Your task to perform on an android device: Open the phone app and click the voicemail tab. Image 0: 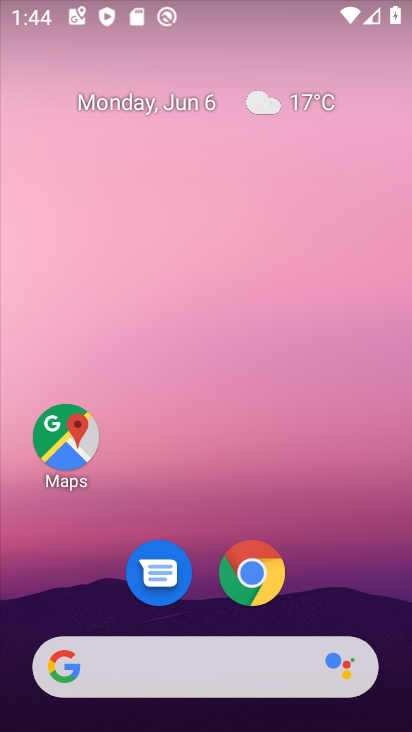
Step 0: drag from (189, 609) to (260, 177)
Your task to perform on an android device: Open the phone app and click the voicemail tab. Image 1: 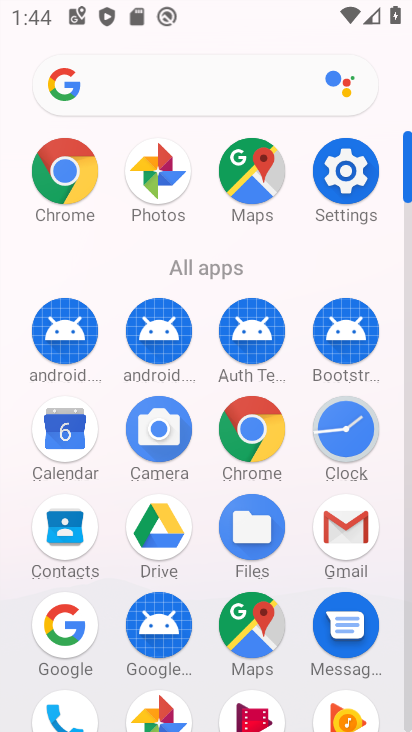
Step 1: click (57, 713)
Your task to perform on an android device: Open the phone app and click the voicemail tab. Image 2: 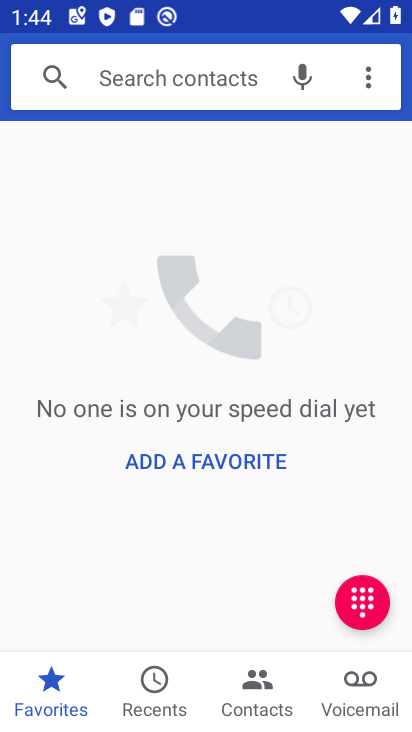
Step 2: click (363, 686)
Your task to perform on an android device: Open the phone app and click the voicemail tab. Image 3: 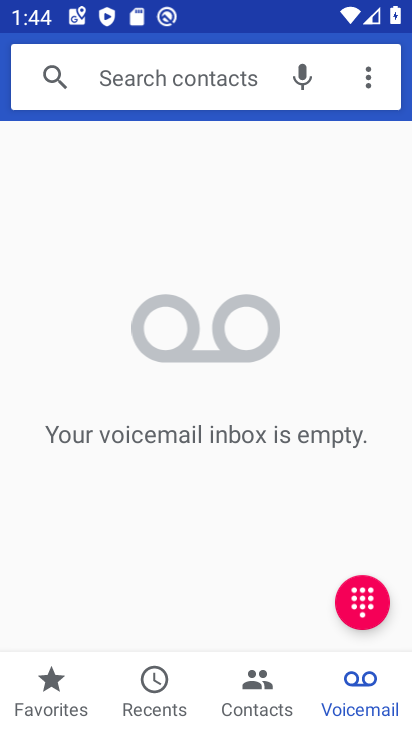
Step 3: task complete